Your task to perform on an android device: Clear the shopping cart on costco. Add "bose soundlink mini" to the cart on costco Image 0: 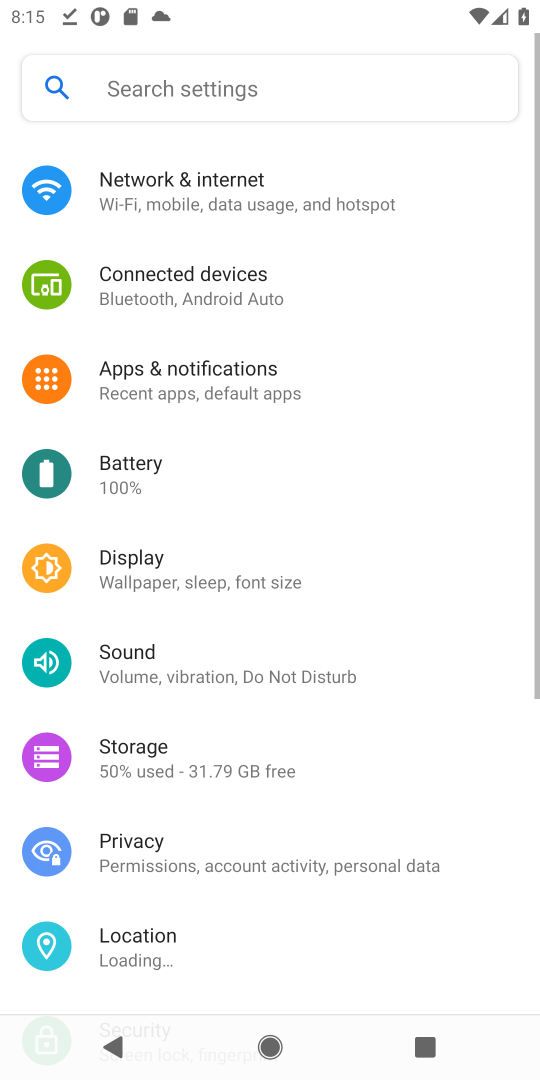
Step 0: click (255, 956)
Your task to perform on an android device: Clear the shopping cart on costco. Add "bose soundlink mini" to the cart on costco Image 1: 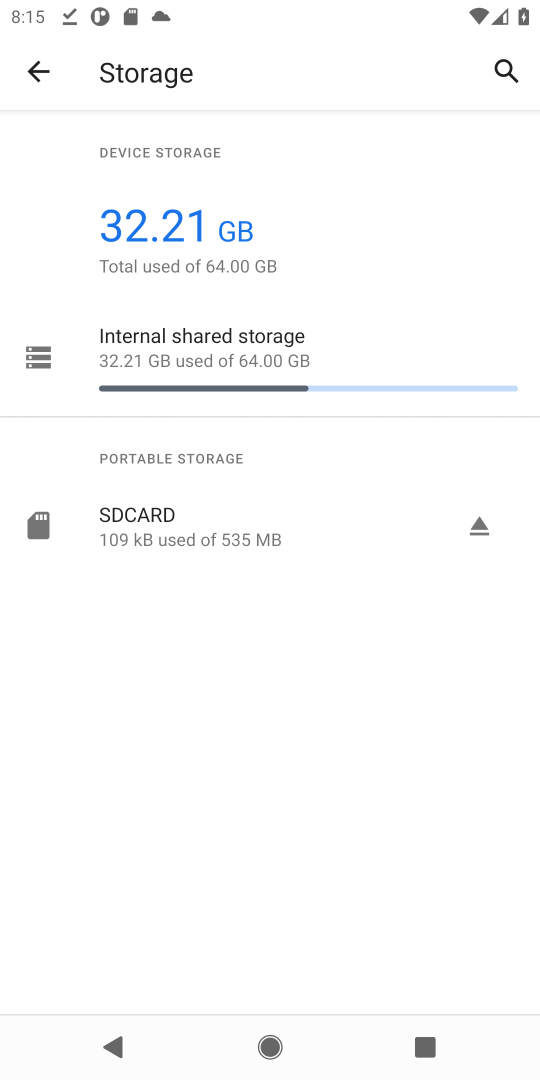
Step 1: press home button
Your task to perform on an android device: Clear the shopping cart on costco. Add "bose soundlink mini" to the cart on costco Image 2: 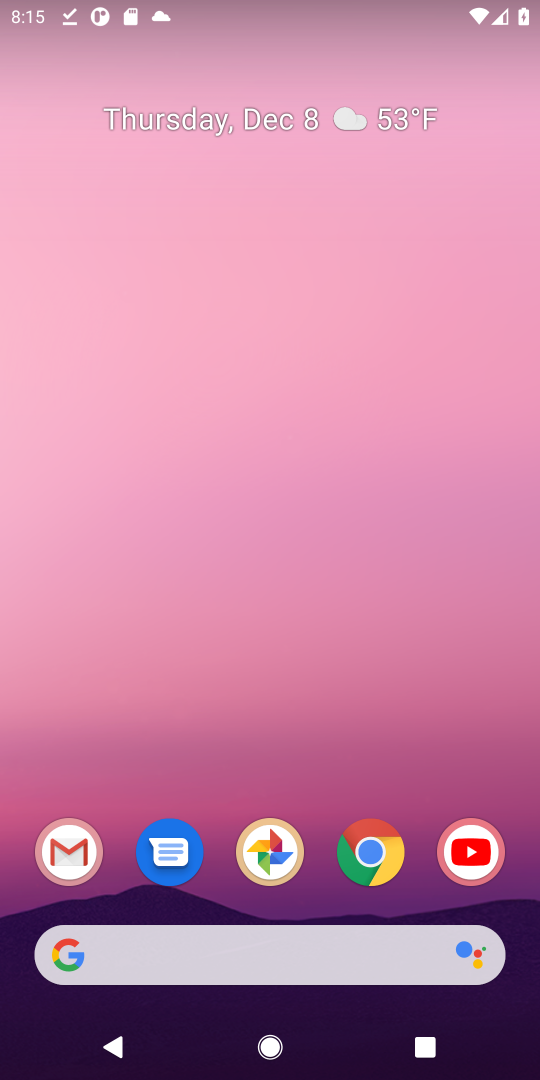
Step 2: click (332, 964)
Your task to perform on an android device: Clear the shopping cart on costco. Add "bose soundlink mini" to the cart on costco Image 3: 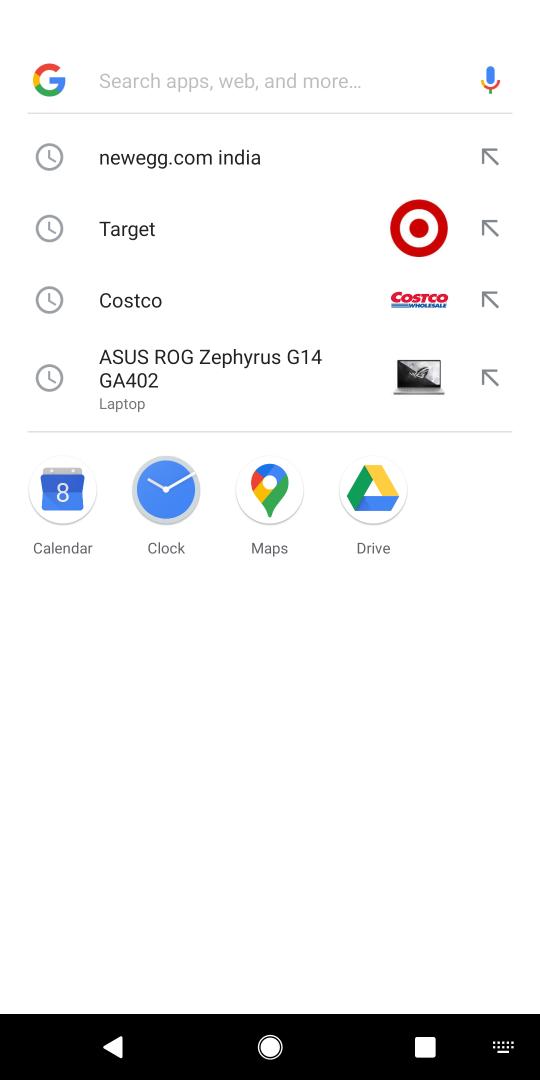
Step 3: type "costco"
Your task to perform on an android device: Clear the shopping cart on costco. Add "bose soundlink mini" to the cart on costco Image 4: 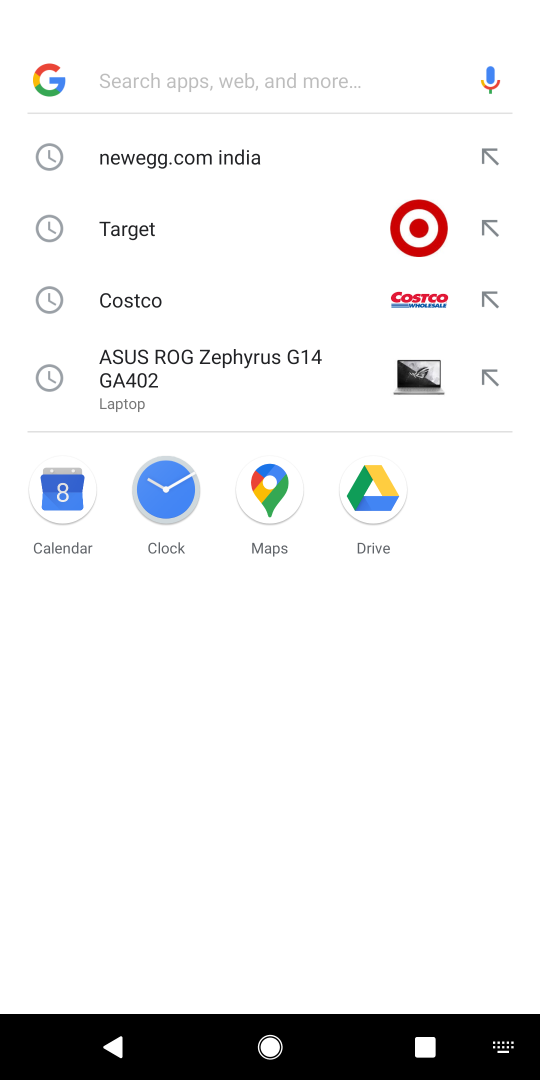
Step 4: click (165, 301)
Your task to perform on an android device: Clear the shopping cart on costco. Add "bose soundlink mini" to the cart on costco Image 5: 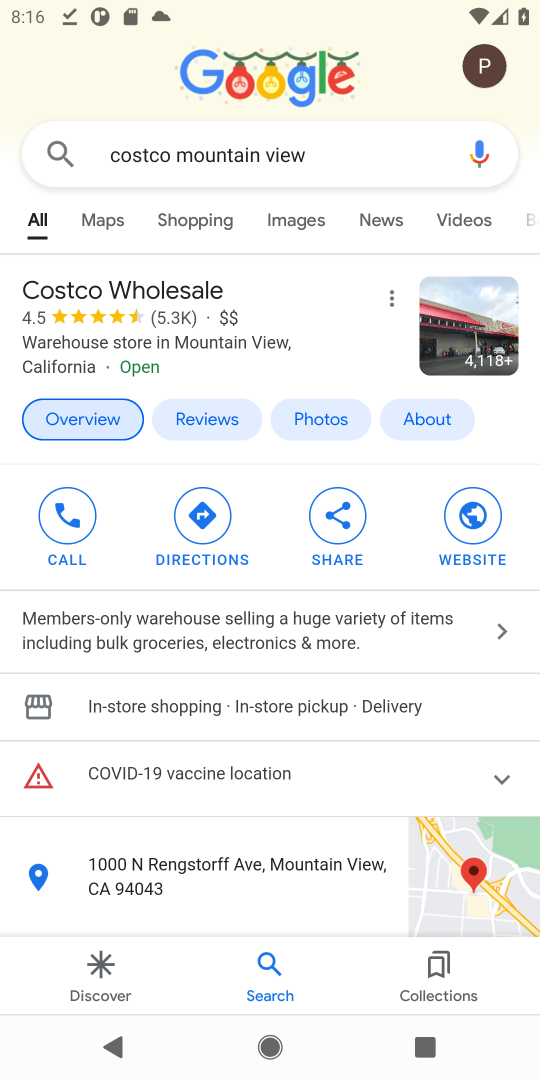
Step 5: task complete